Your task to perform on an android device: find snoozed emails in the gmail app Image 0: 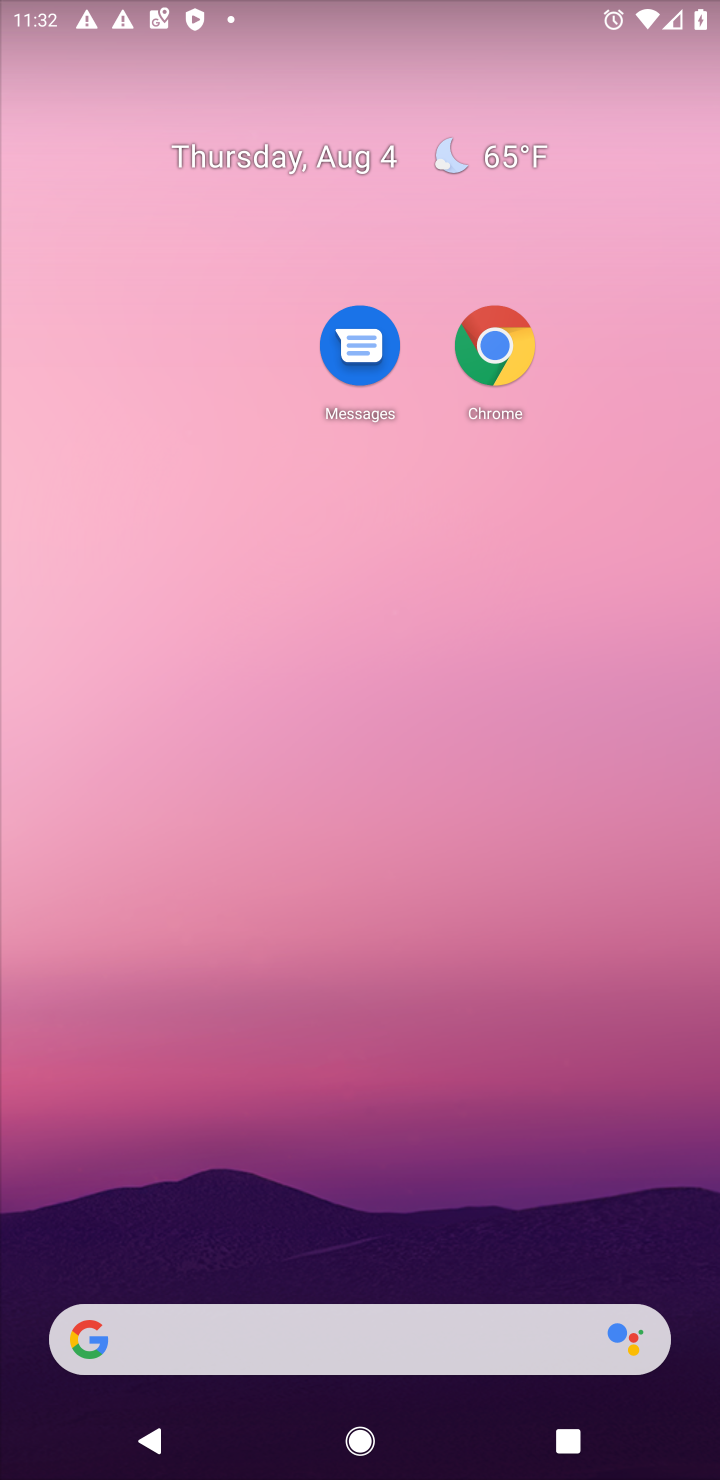
Step 0: drag from (428, 988) to (459, 266)
Your task to perform on an android device: find snoozed emails in the gmail app Image 1: 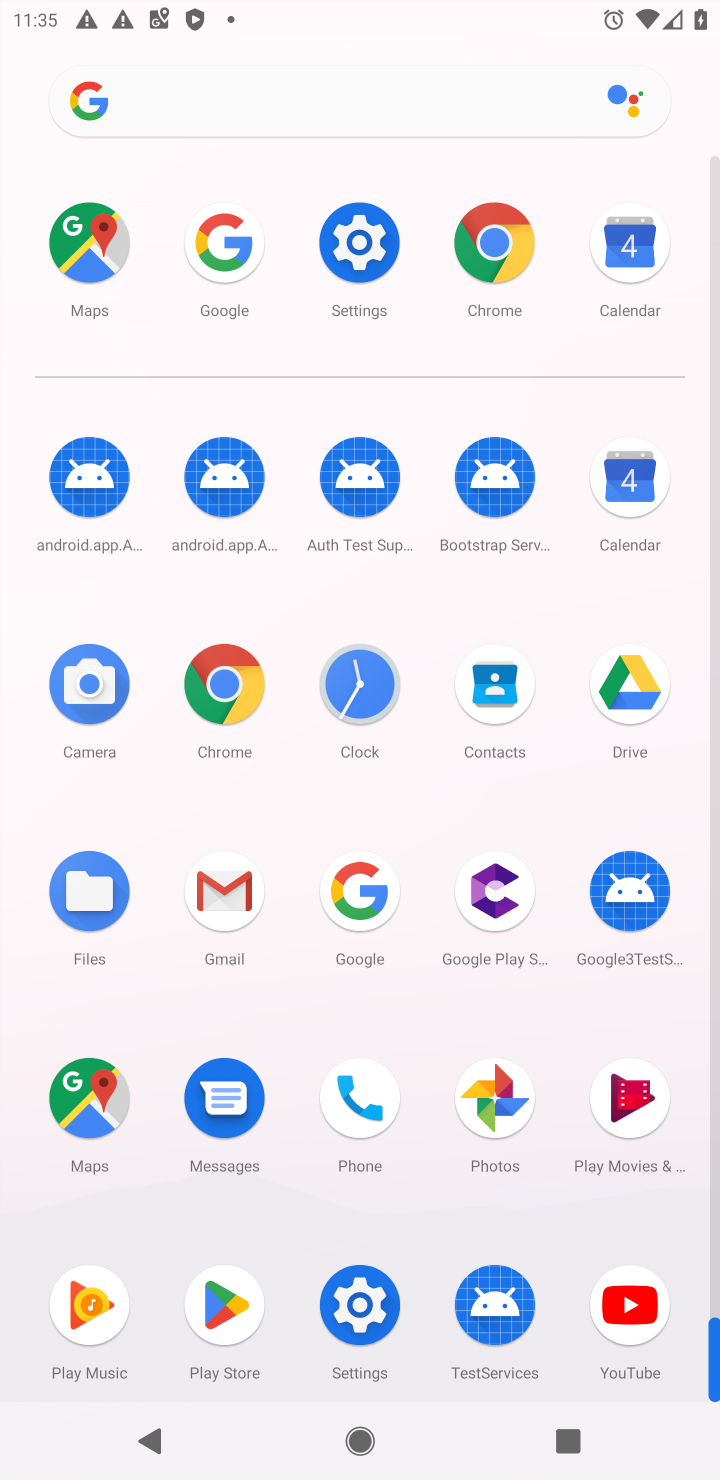
Step 1: click (246, 901)
Your task to perform on an android device: find snoozed emails in the gmail app Image 2: 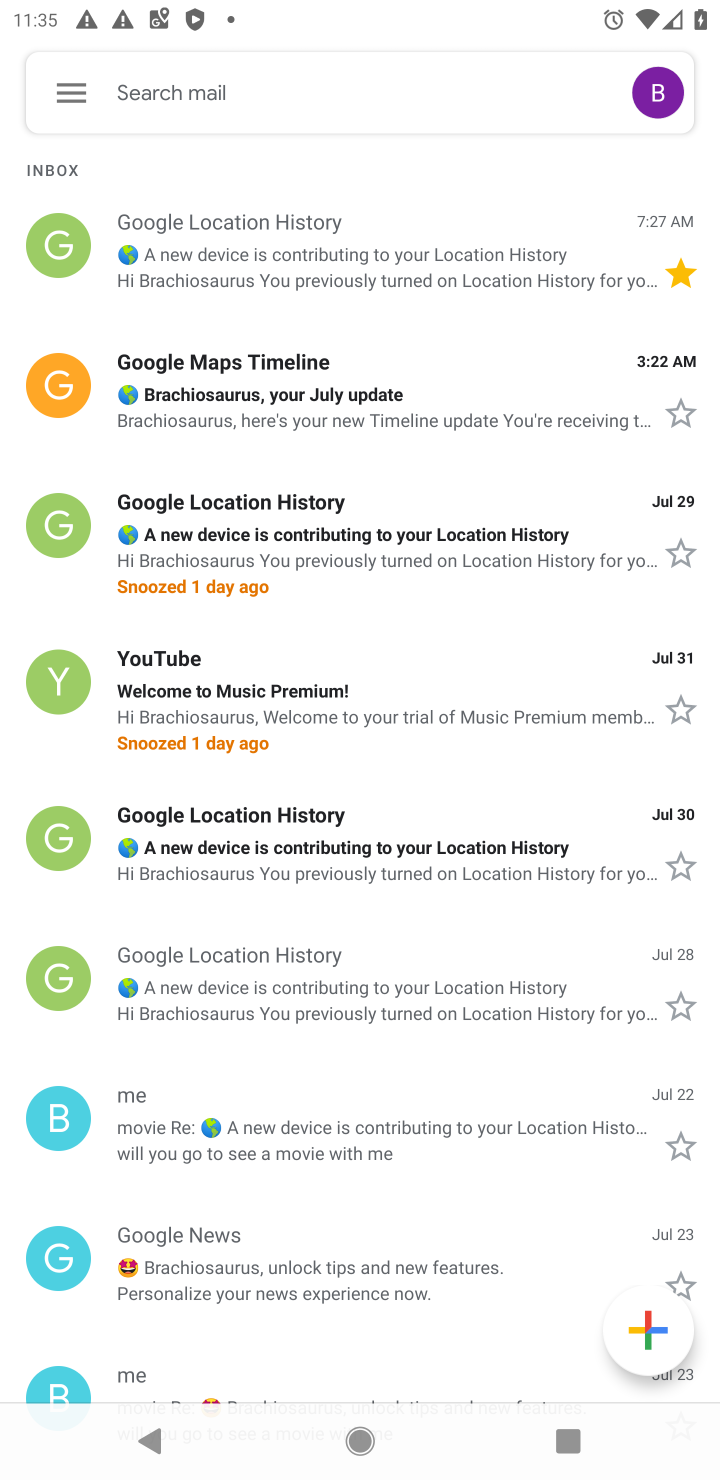
Step 2: click (72, 108)
Your task to perform on an android device: find snoozed emails in the gmail app Image 3: 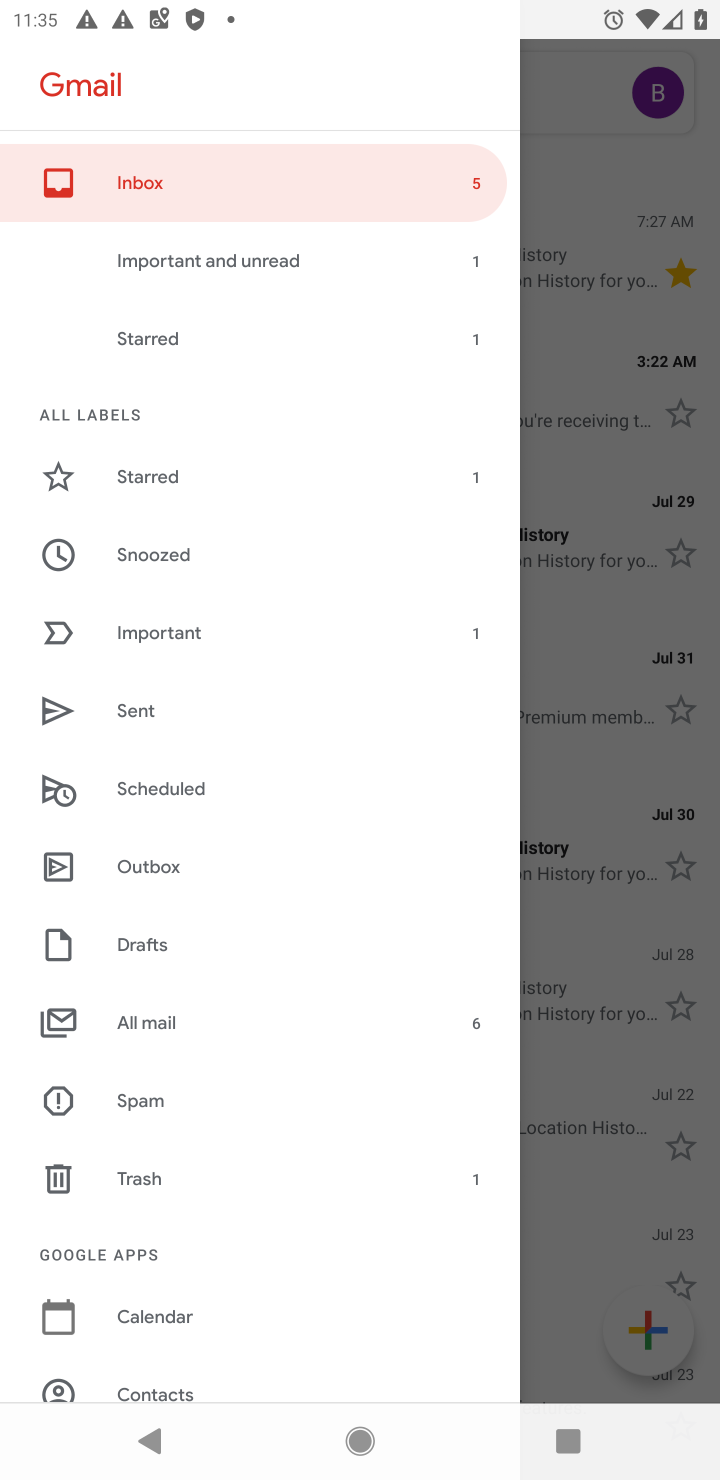
Step 3: click (176, 559)
Your task to perform on an android device: find snoozed emails in the gmail app Image 4: 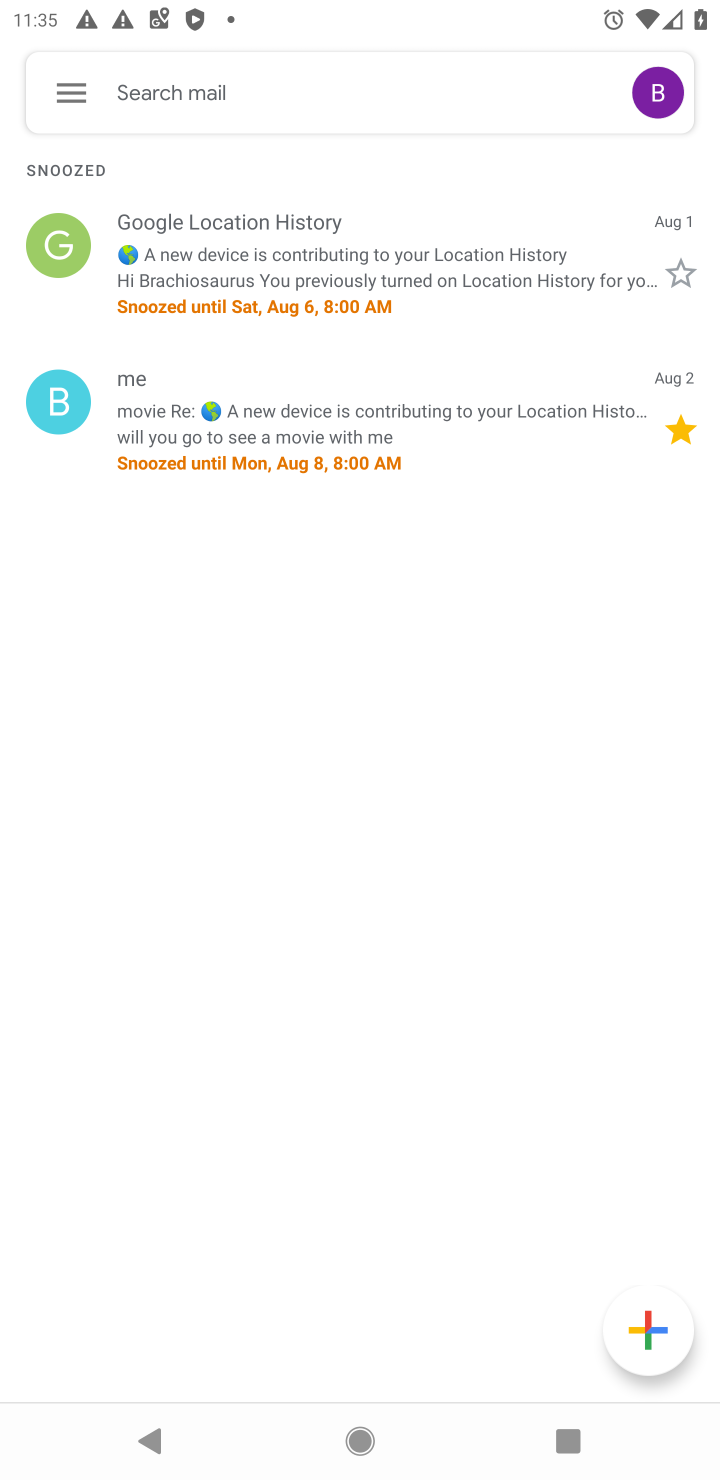
Step 4: task complete